Your task to perform on an android device: Open internet settings Image 0: 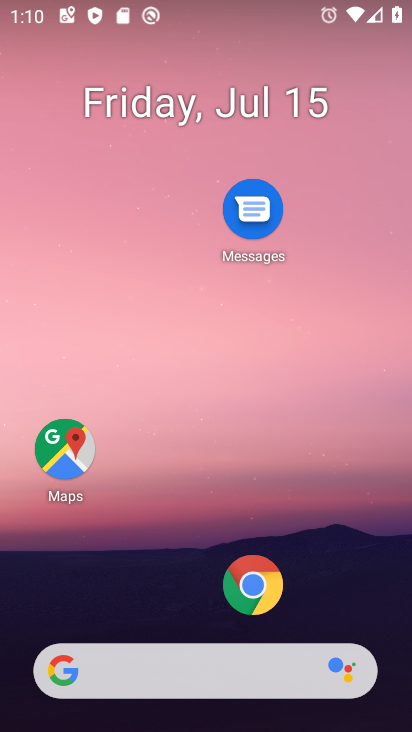
Step 0: drag from (186, 671) to (214, 0)
Your task to perform on an android device: Open internet settings Image 1: 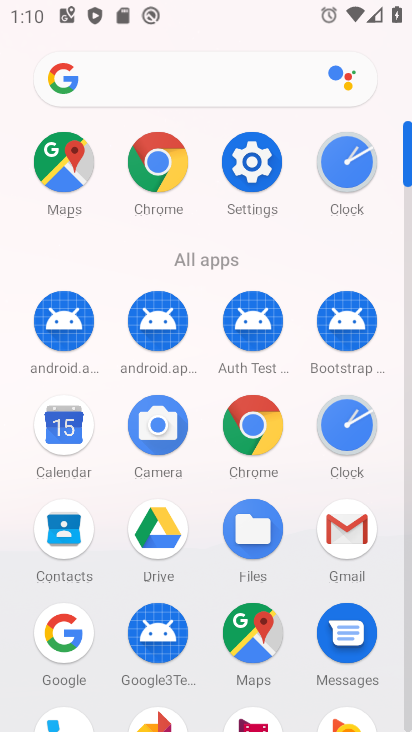
Step 1: click (251, 156)
Your task to perform on an android device: Open internet settings Image 2: 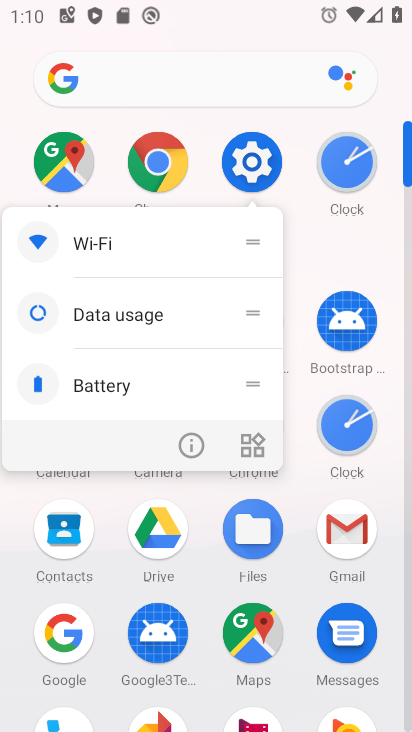
Step 2: click (245, 166)
Your task to perform on an android device: Open internet settings Image 3: 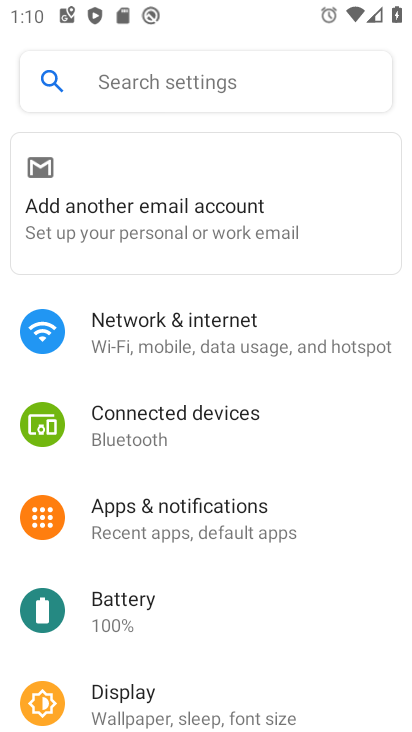
Step 3: click (192, 332)
Your task to perform on an android device: Open internet settings Image 4: 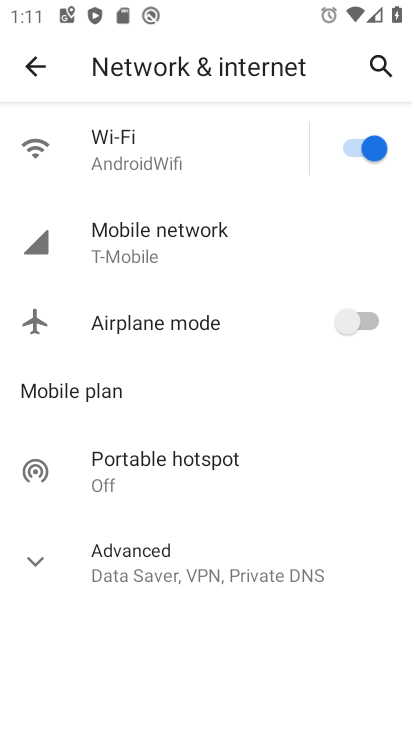
Step 4: task complete